Your task to perform on an android device: What is the news today? Image 0: 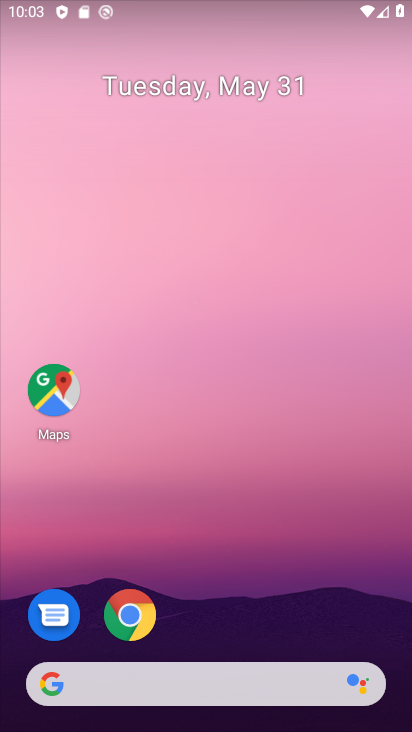
Step 0: task complete